Your task to perform on an android device: delete the emails in spam in the gmail app Image 0: 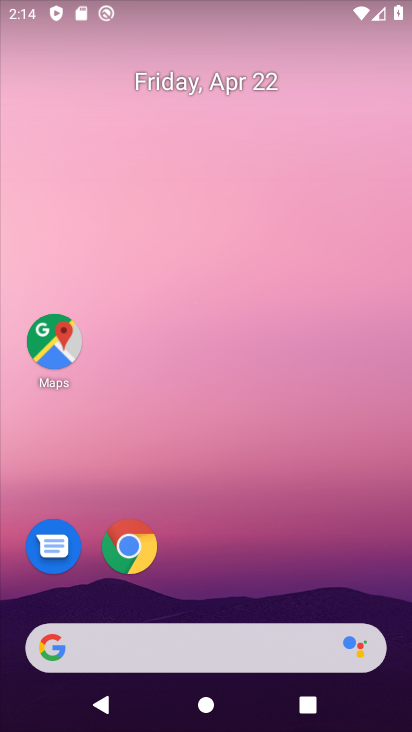
Step 0: drag from (172, 680) to (267, 223)
Your task to perform on an android device: delete the emails in spam in the gmail app Image 1: 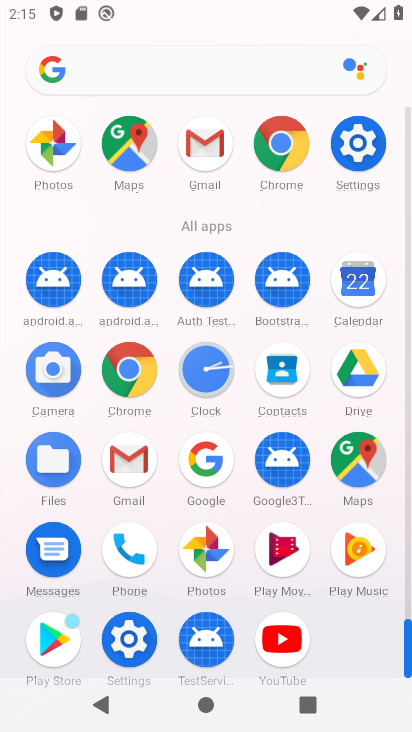
Step 1: click (202, 163)
Your task to perform on an android device: delete the emails in spam in the gmail app Image 2: 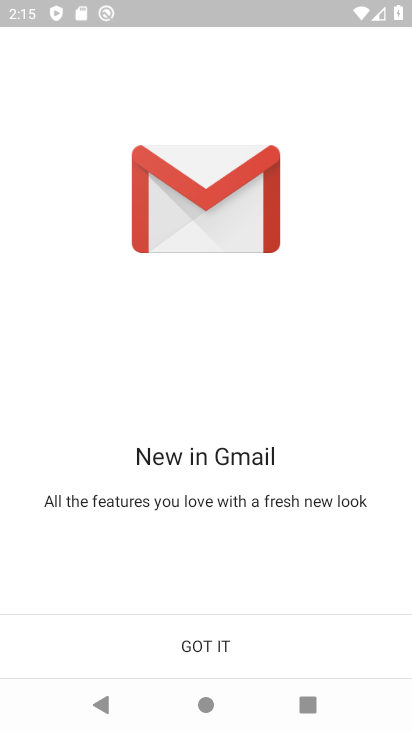
Step 2: click (285, 664)
Your task to perform on an android device: delete the emails in spam in the gmail app Image 3: 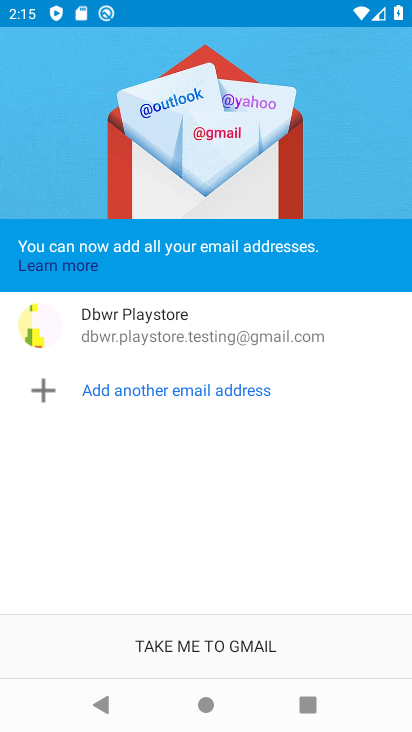
Step 3: click (268, 327)
Your task to perform on an android device: delete the emails in spam in the gmail app Image 4: 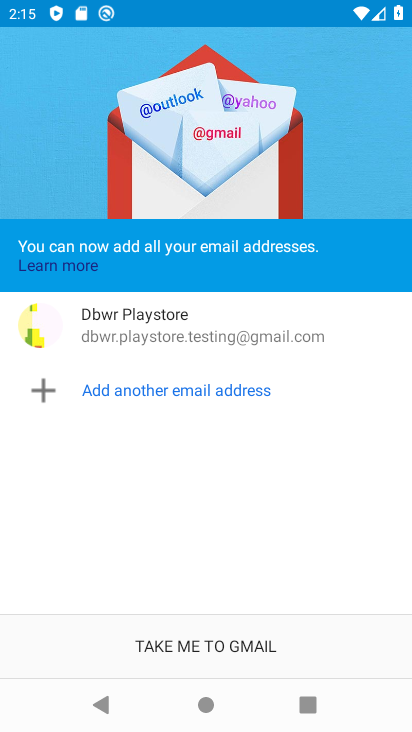
Step 4: task complete